Your task to perform on an android device: change notifications settings Image 0: 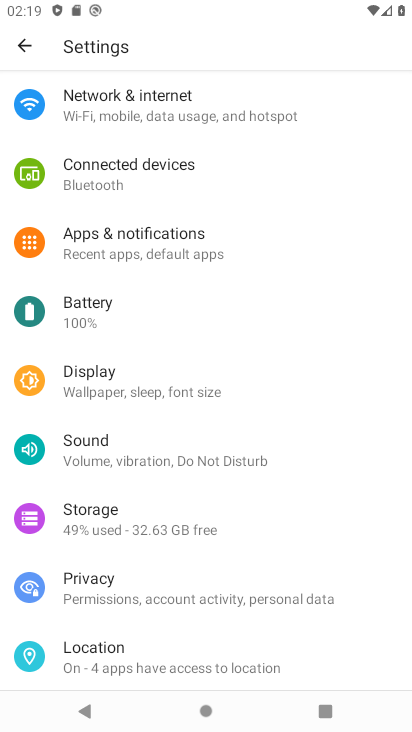
Step 0: press home button
Your task to perform on an android device: change notifications settings Image 1: 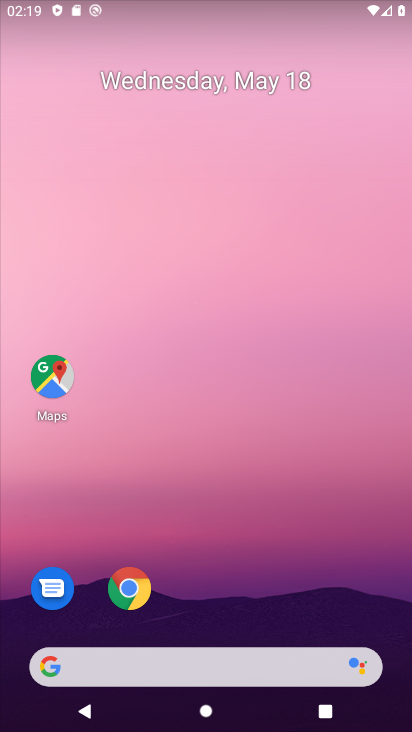
Step 1: drag from (25, 572) to (280, 177)
Your task to perform on an android device: change notifications settings Image 2: 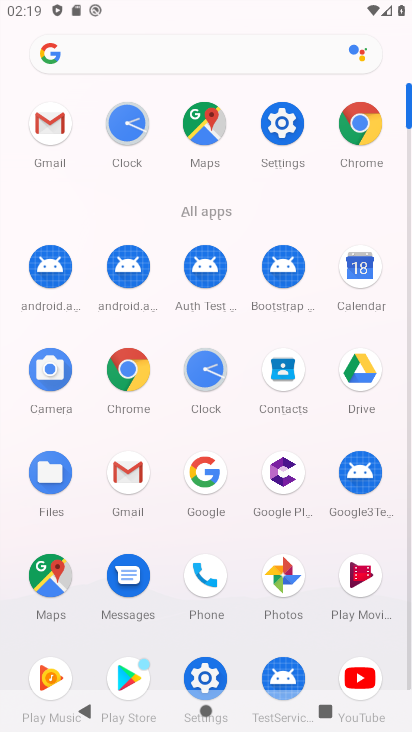
Step 2: click (287, 120)
Your task to perform on an android device: change notifications settings Image 3: 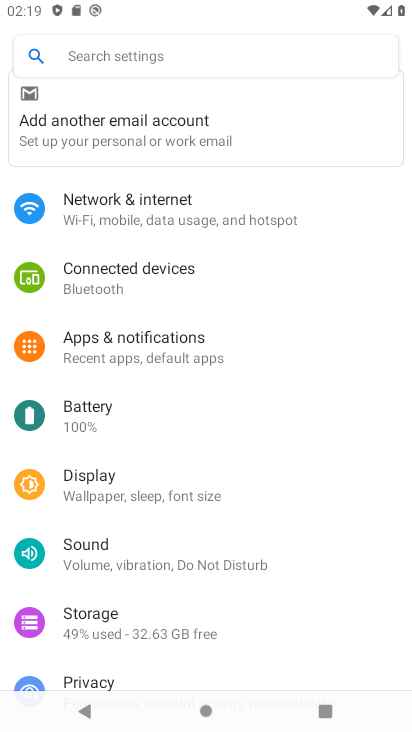
Step 3: click (162, 344)
Your task to perform on an android device: change notifications settings Image 4: 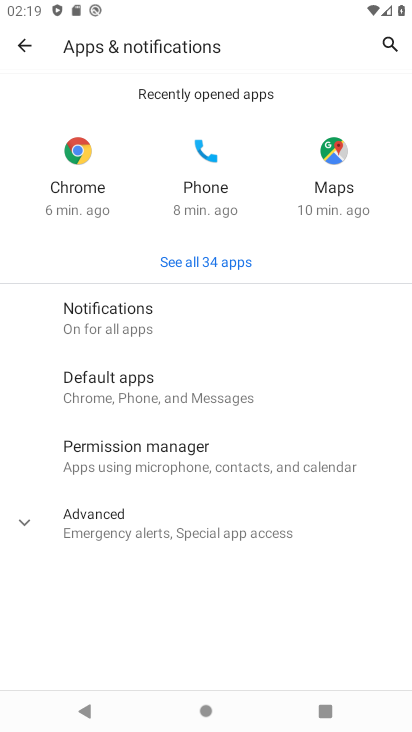
Step 4: click (207, 310)
Your task to perform on an android device: change notifications settings Image 5: 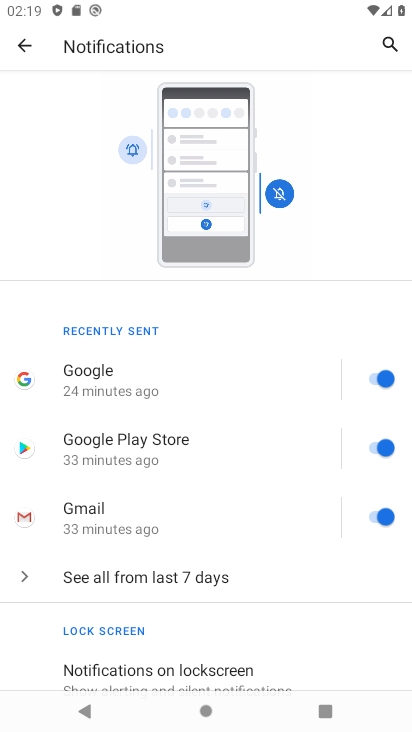
Step 5: click (385, 380)
Your task to perform on an android device: change notifications settings Image 6: 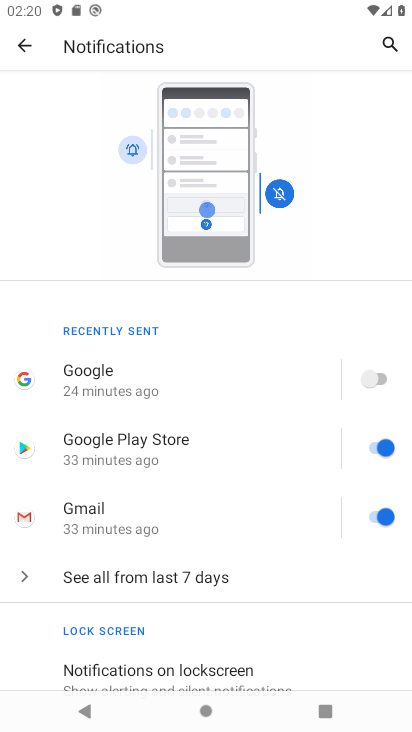
Step 6: task complete